Your task to perform on an android device: open chrome privacy settings Image 0: 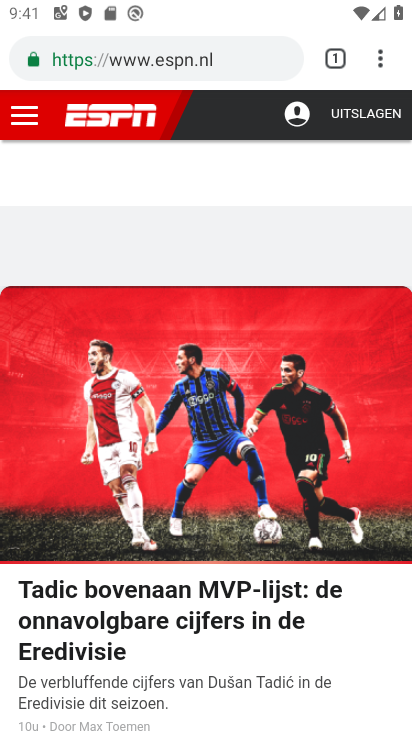
Step 0: press home button
Your task to perform on an android device: open chrome privacy settings Image 1: 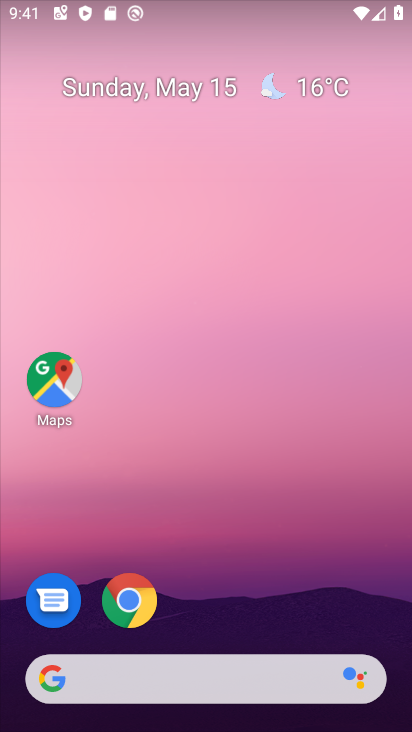
Step 1: drag from (221, 651) to (236, 7)
Your task to perform on an android device: open chrome privacy settings Image 2: 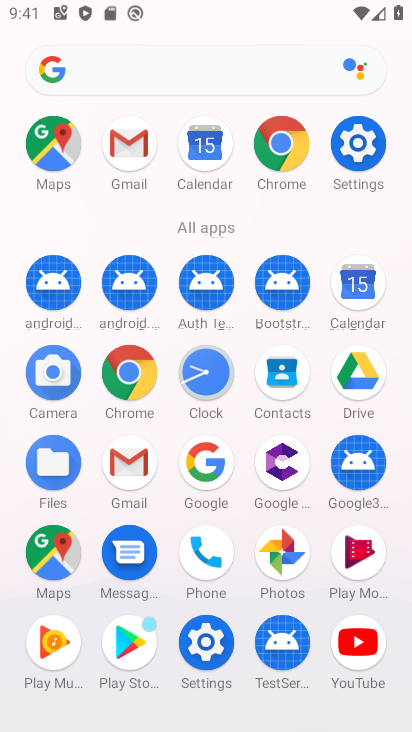
Step 2: click (269, 155)
Your task to perform on an android device: open chrome privacy settings Image 3: 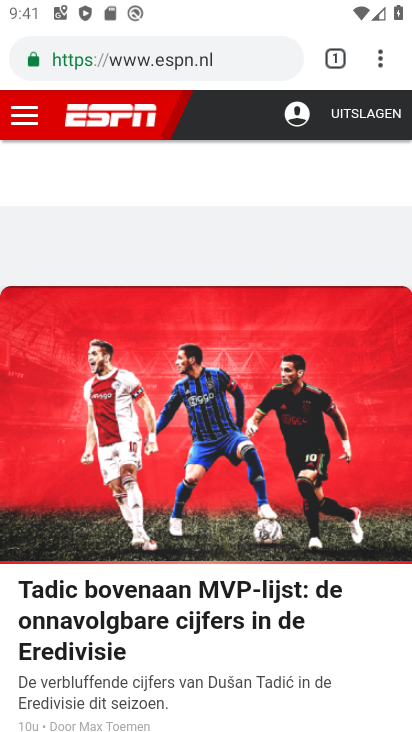
Step 3: click (376, 63)
Your task to perform on an android device: open chrome privacy settings Image 4: 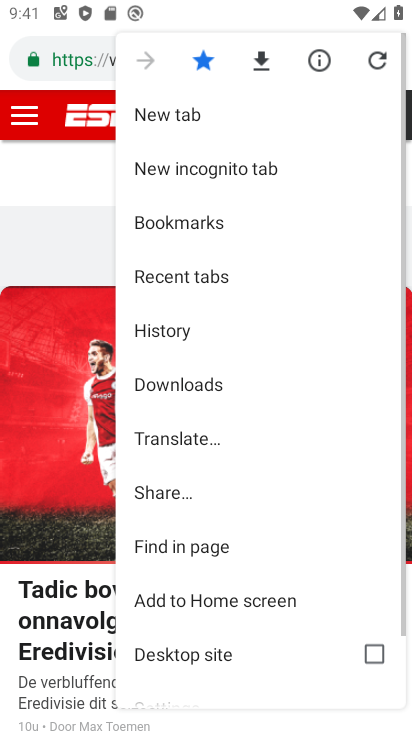
Step 4: drag from (256, 631) to (235, 81)
Your task to perform on an android device: open chrome privacy settings Image 5: 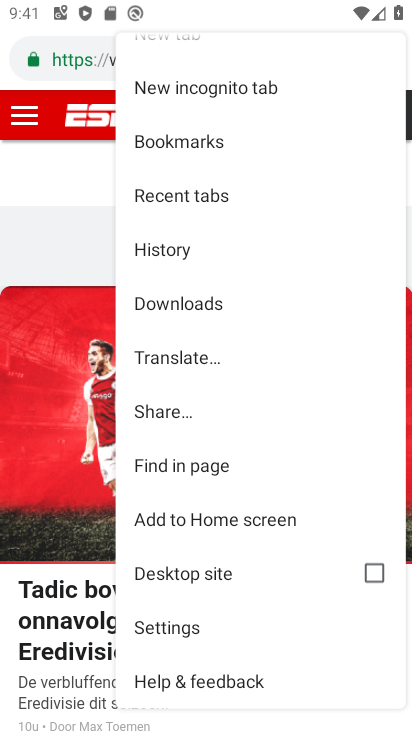
Step 5: click (164, 641)
Your task to perform on an android device: open chrome privacy settings Image 6: 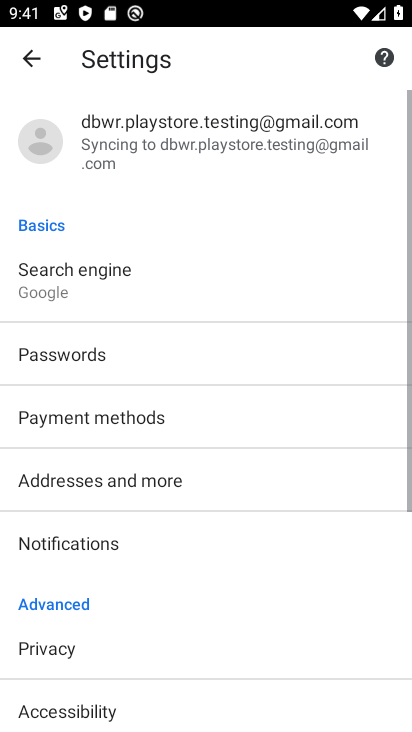
Step 6: drag from (183, 615) to (155, 207)
Your task to perform on an android device: open chrome privacy settings Image 7: 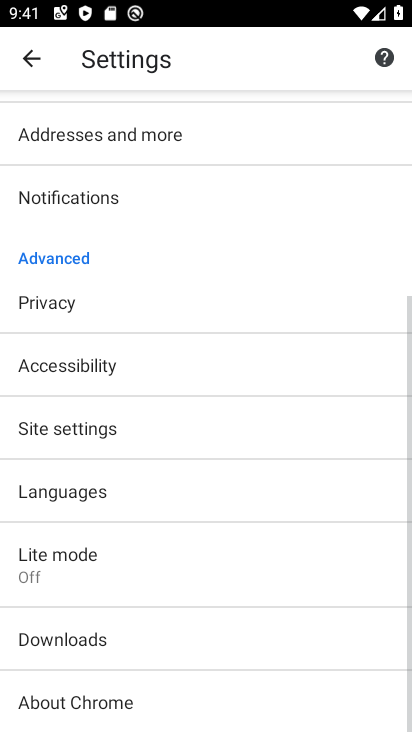
Step 7: click (67, 293)
Your task to perform on an android device: open chrome privacy settings Image 8: 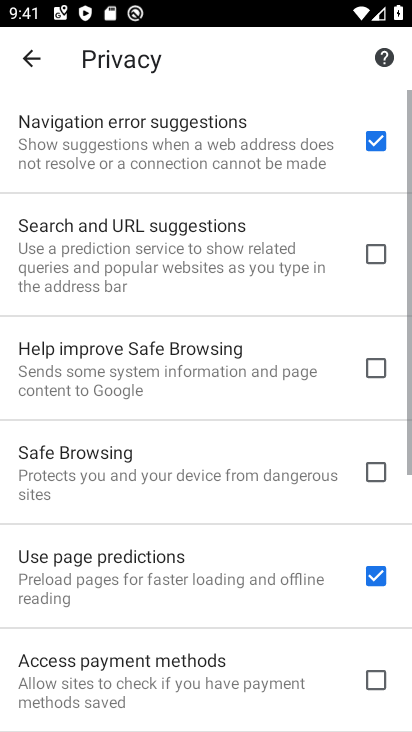
Step 8: task complete